Your task to perform on an android device: Open the phone app and click the voicemail tab. Image 0: 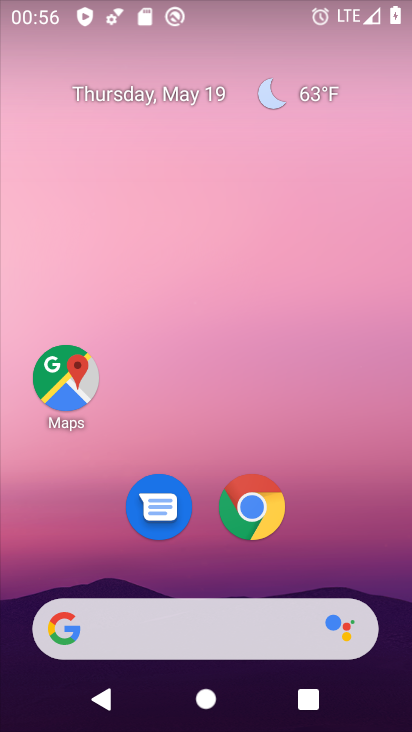
Step 0: drag from (208, 562) to (212, 306)
Your task to perform on an android device: Open the phone app and click the voicemail tab. Image 1: 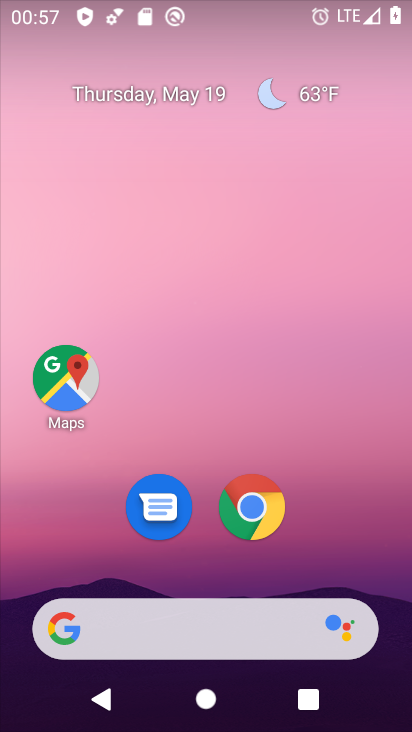
Step 1: drag from (167, 545) to (181, 276)
Your task to perform on an android device: Open the phone app and click the voicemail tab. Image 2: 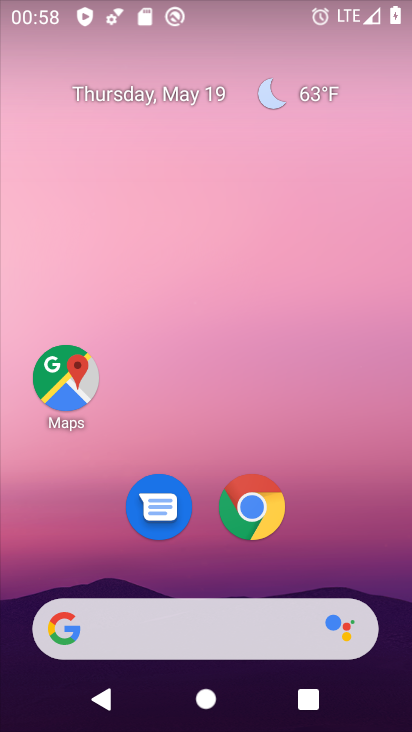
Step 2: drag from (124, 605) to (217, 295)
Your task to perform on an android device: Open the phone app and click the voicemail tab. Image 3: 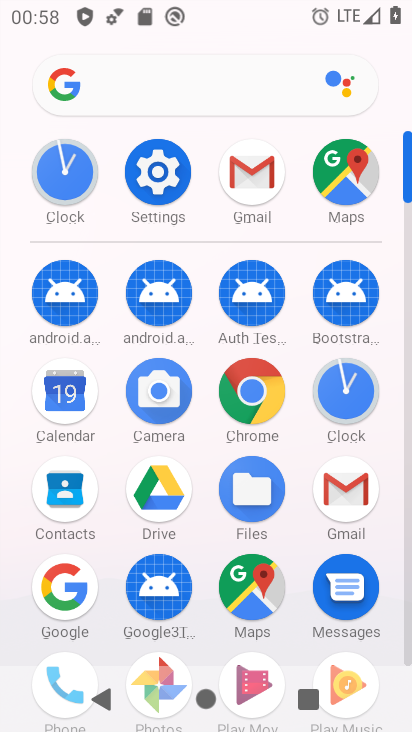
Step 3: click (74, 676)
Your task to perform on an android device: Open the phone app and click the voicemail tab. Image 4: 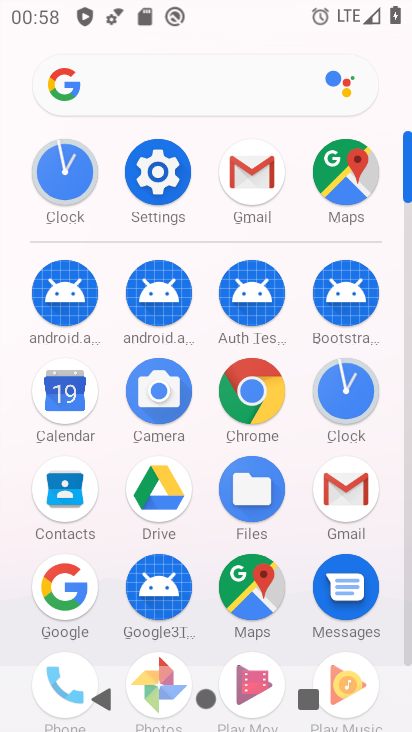
Step 4: drag from (106, 634) to (201, 345)
Your task to perform on an android device: Open the phone app and click the voicemail tab. Image 5: 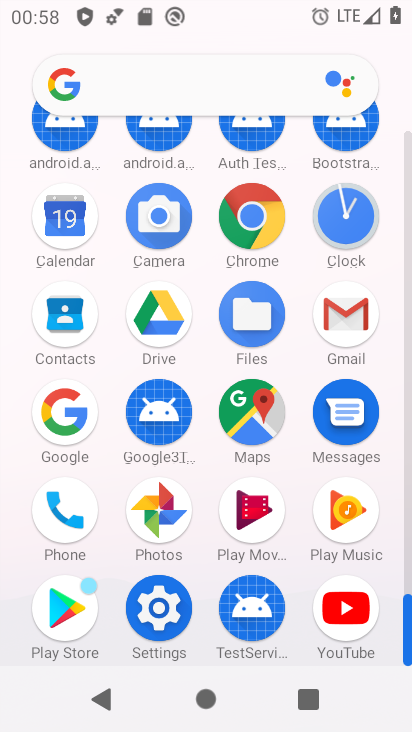
Step 5: click (77, 621)
Your task to perform on an android device: Open the phone app and click the voicemail tab. Image 6: 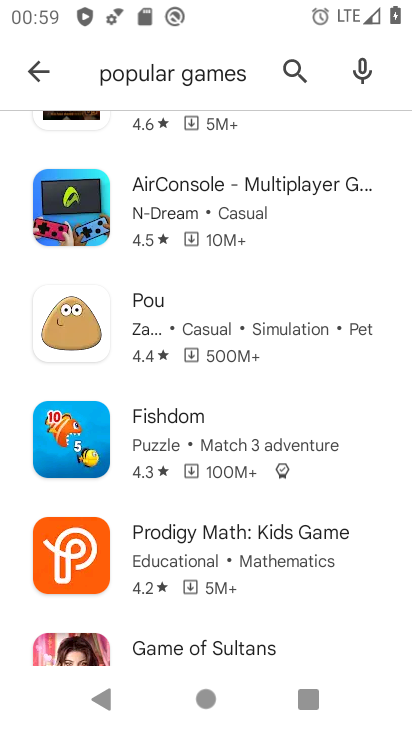
Step 6: click (30, 68)
Your task to perform on an android device: Open the phone app and click the voicemail tab. Image 7: 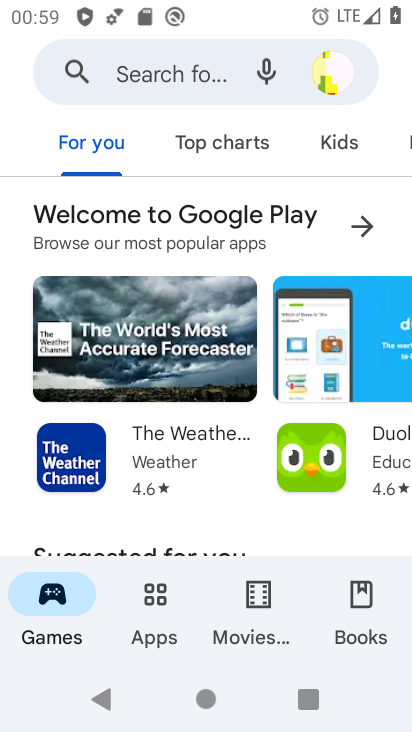
Step 7: press home button
Your task to perform on an android device: Open the phone app and click the voicemail tab. Image 8: 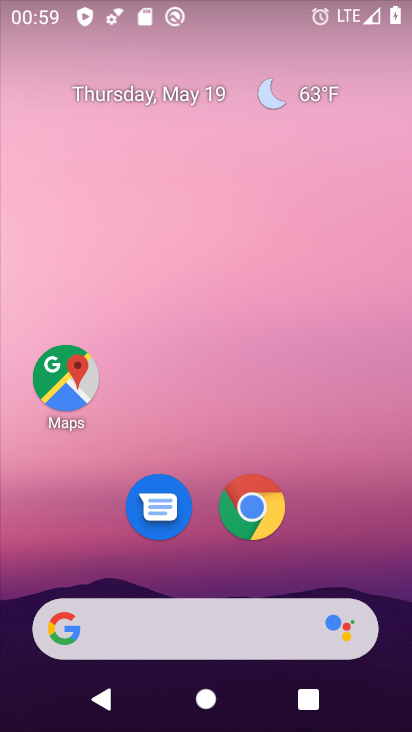
Step 8: drag from (128, 531) to (170, 348)
Your task to perform on an android device: Open the phone app and click the voicemail tab. Image 9: 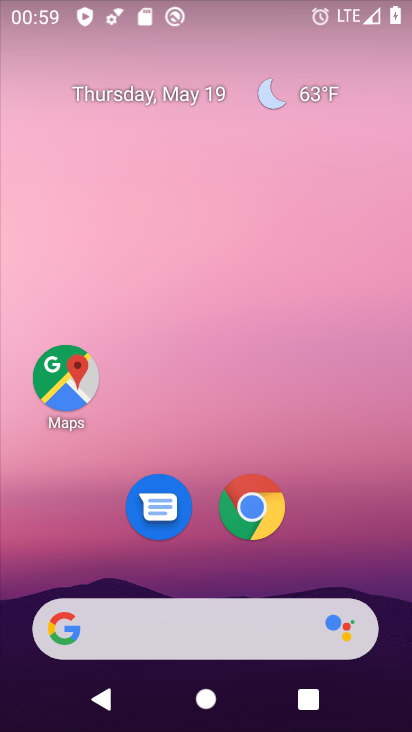
Step 9: drag from (161, 495) to (161, 264)
Your task to perform on an android device: Open the phone app and click the voicemail tab. Image 10: 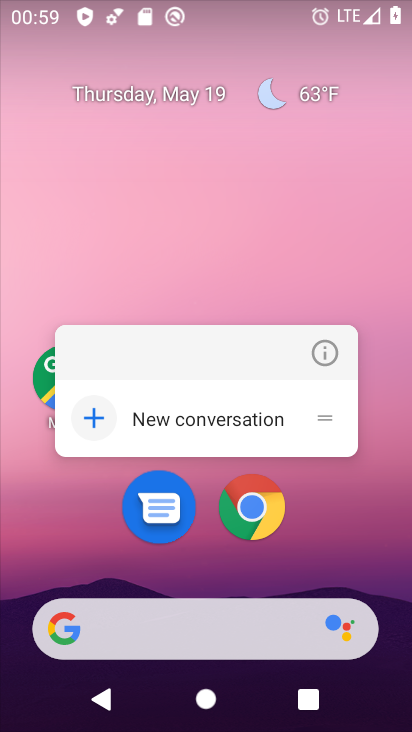
Step 10: click (255, 129)
Your task to perform on an android device: Open the phone app and click the voicemail tab. Image 11: 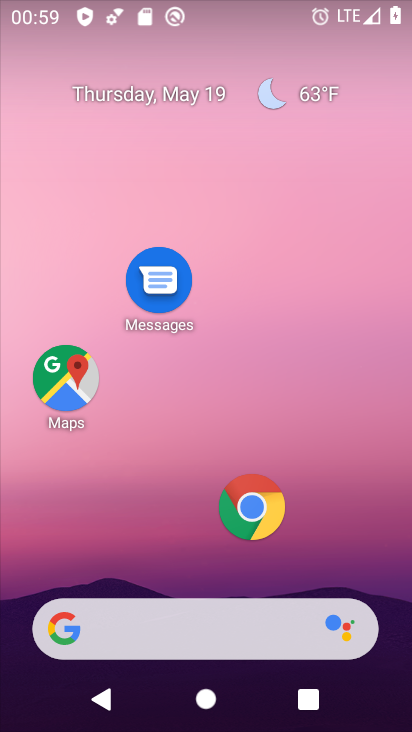
Step 11: drag from (177, 591) to (276, 24)
Your task to perform on an android device: Open the phone app and click the voicemail tab. Image 12: 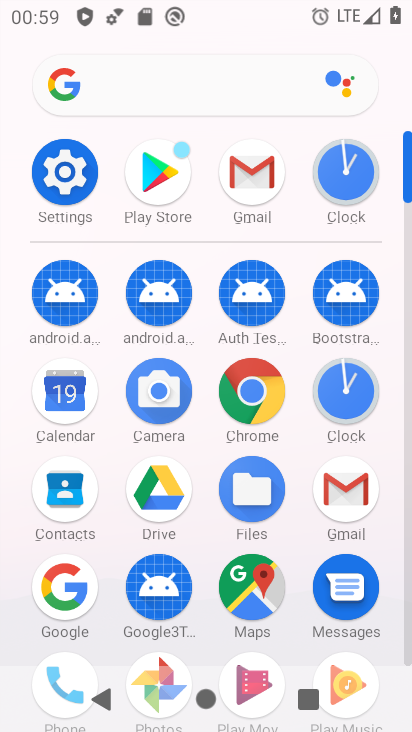
Step 12: drag from (60, 638) to (147, 158)
Your task to perform on an android device: Open the phone app and click the voicemail tab. Image 13: 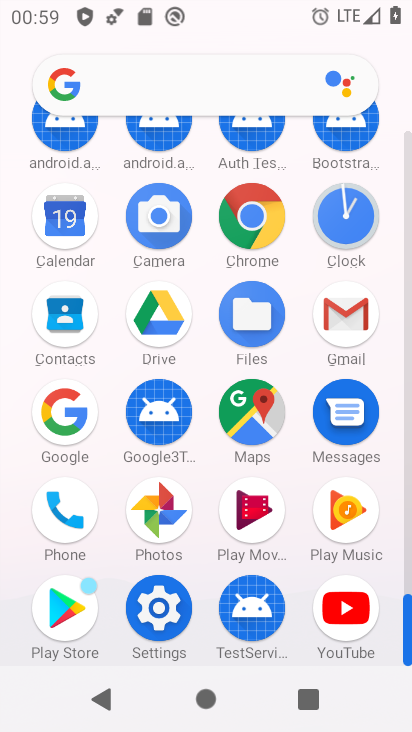
Step 13: click (57, 509)
Your task to perform on an android device: Open the phone app and click the voicemail tab. Image 14: 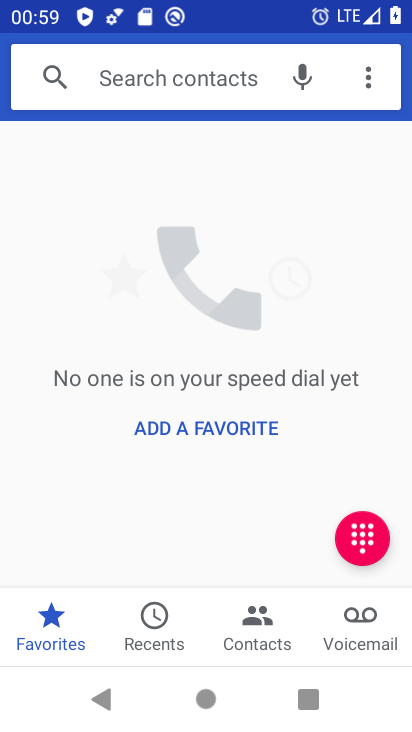
Step 14: click (364, 612)
Your task to perform on an android device: Open the phone app and click the voicemail tab. Image 15: 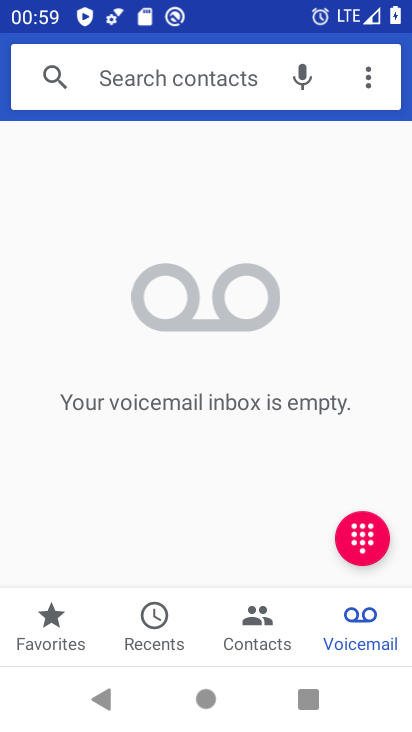
Step 15: task complete